Your task to perform on an android device: add a label to a message in the gmail app Image 0: 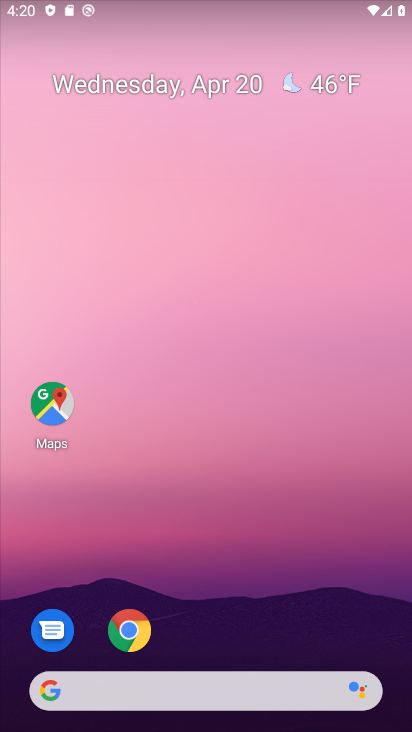
Step 0: drag from (160, 657) to (195, 344)
Your task to perform on an android device: add a label to a message in the gmail app Image 1: 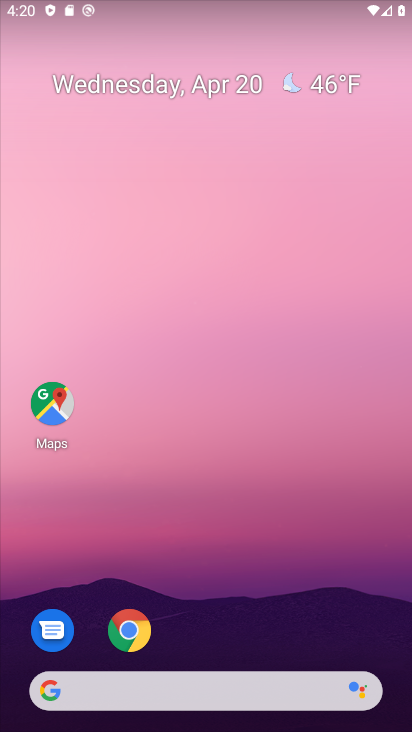
Step 1: drag from (208, 674) to (243, 247)
Your task to perform on an android device: add a label to a message in the gmail app Image 2: 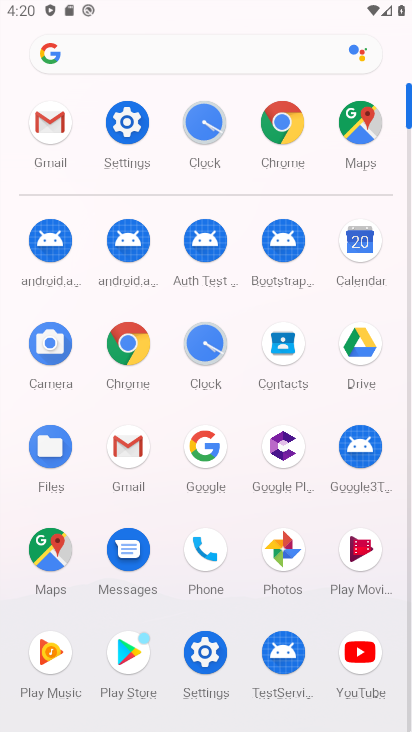
Step 2: click (122, 456)
Your task to perform on an android device: add a label to a message in the gmail app Image 3: 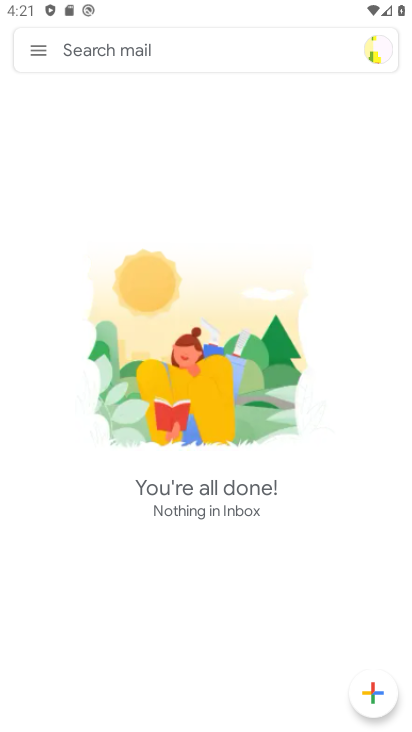
Step 3: task complete